Your task to perform on an android device: What's the weather? Image 0: 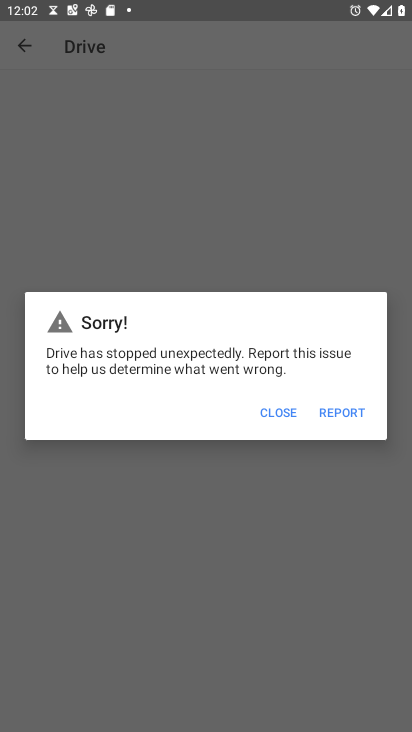
Step 0: press home button
Your task to perform on an android device: What's the weather? Image 1: 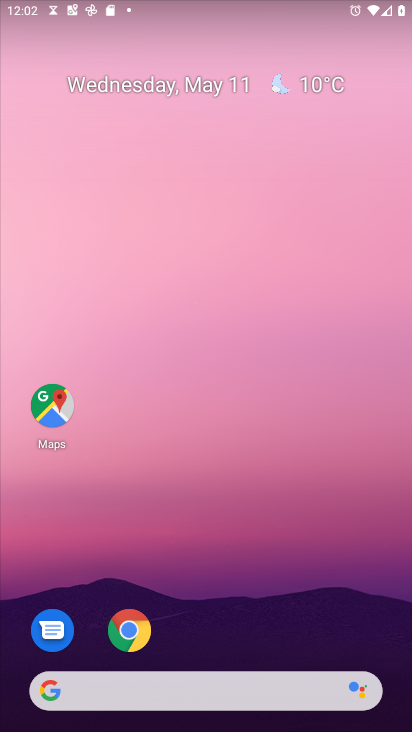
Step 1: click (291, 84)
Your task to perform on an android device: What's the weather? Image 2: 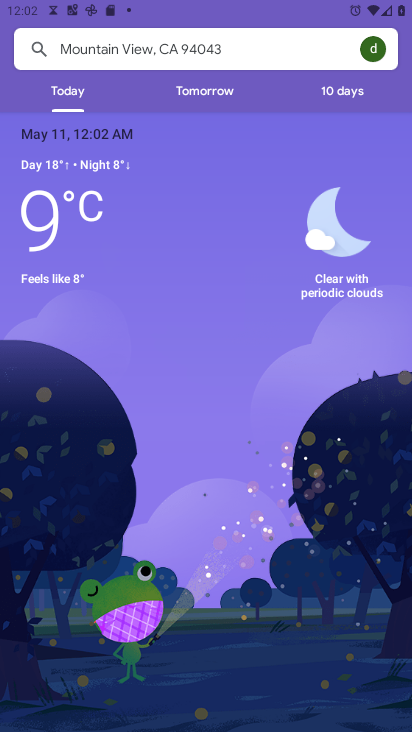
Step 2: task complete